Your task to perform on an android device: Open Youtube and go to "Your channel" Image 0: 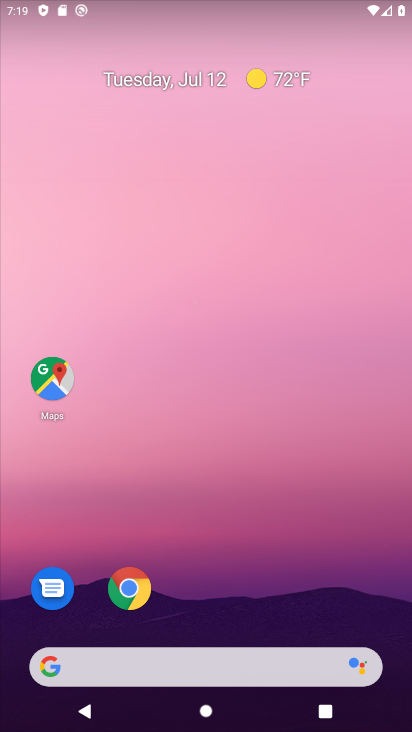
Step 0: drag from (254, 607) to (293, 66)
Your task to perform on an android device: Open Youtube and go to "Your channel" Image 1: 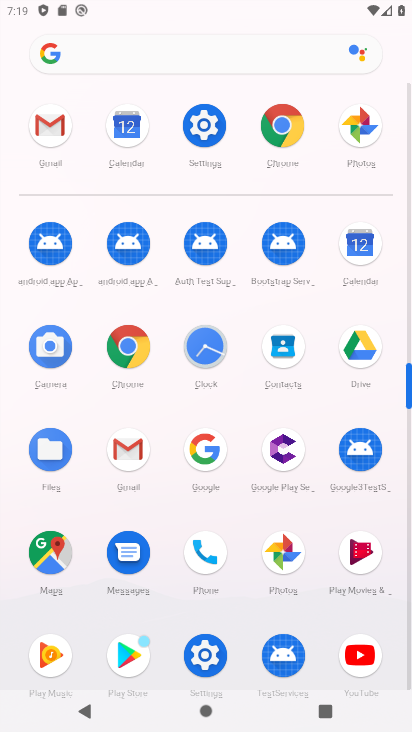
Step 1: click (368, 656)
Your task to perform on an android device: Open Youtube and go to "Your channel" Image 2: 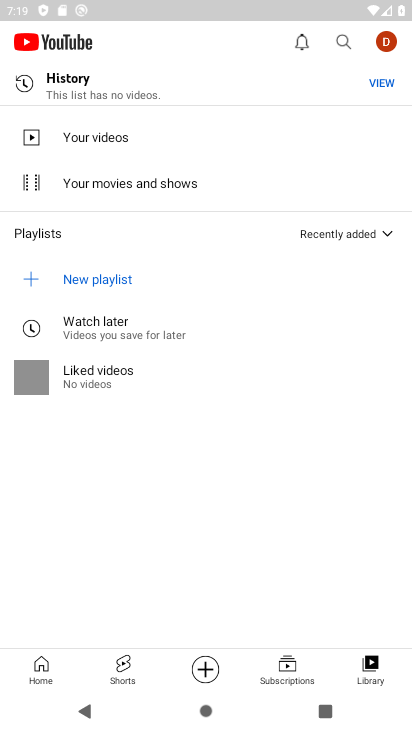
Step 2: click (382, 36)
Your task to perform on an android device: Open Youtube and go to "Your channel" Image 3: 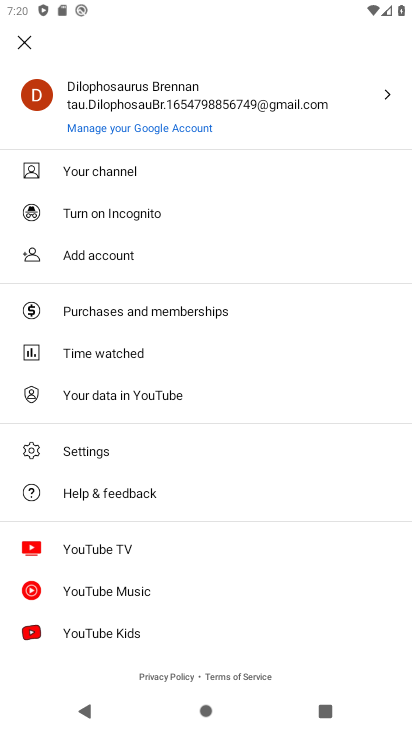
Step 3: click (141, 174)
Your task to perform on an android device: Open Youtube and go to "Your channel" Image 4: 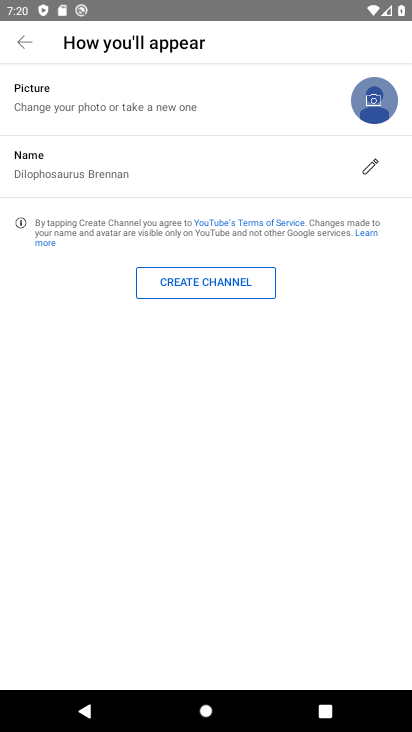
Step 4: task complete